Your task to perform on an android device: Open the map Image 0: 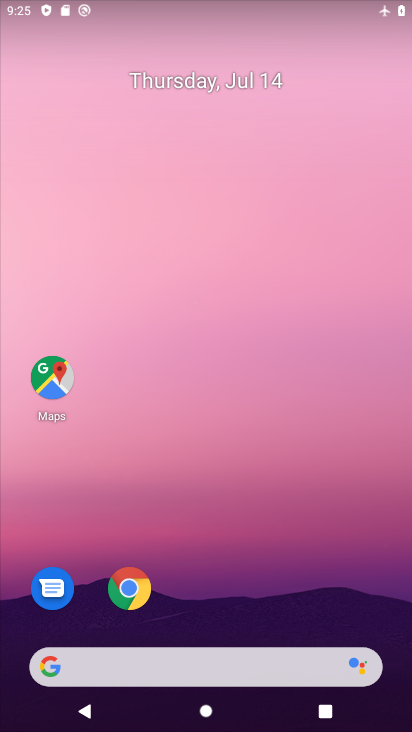
Step 0: click (58, 370)
Your task to perform on an android device: Open the map Image 1: 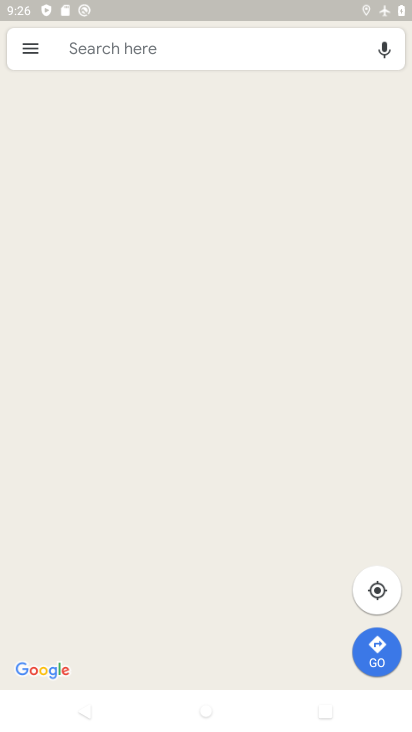
Step 1: task complete